Your task to perform on an android device: install app "Facebook" Image 0: 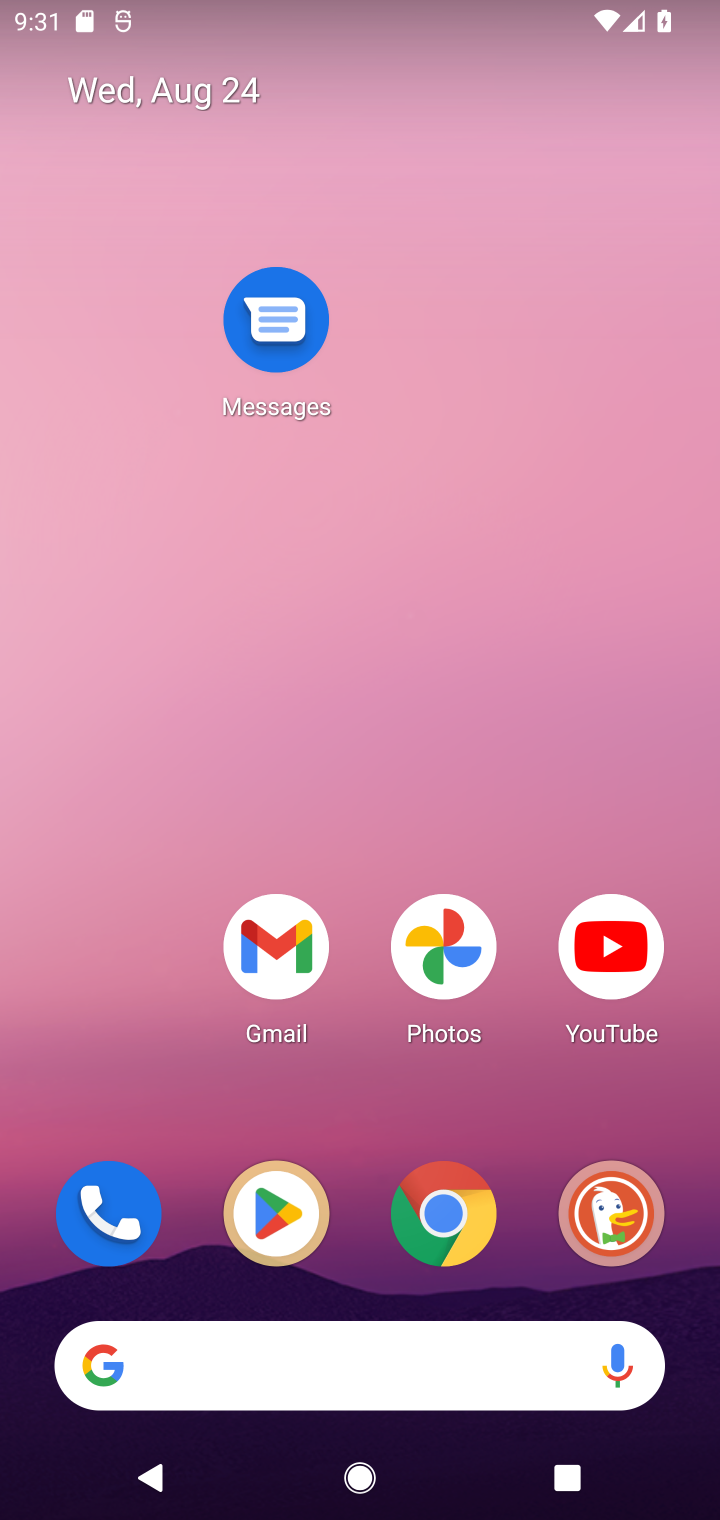
Step 0: click (273, 1207)
Your task to perform on an android device: install app "Facebook" Image 1: 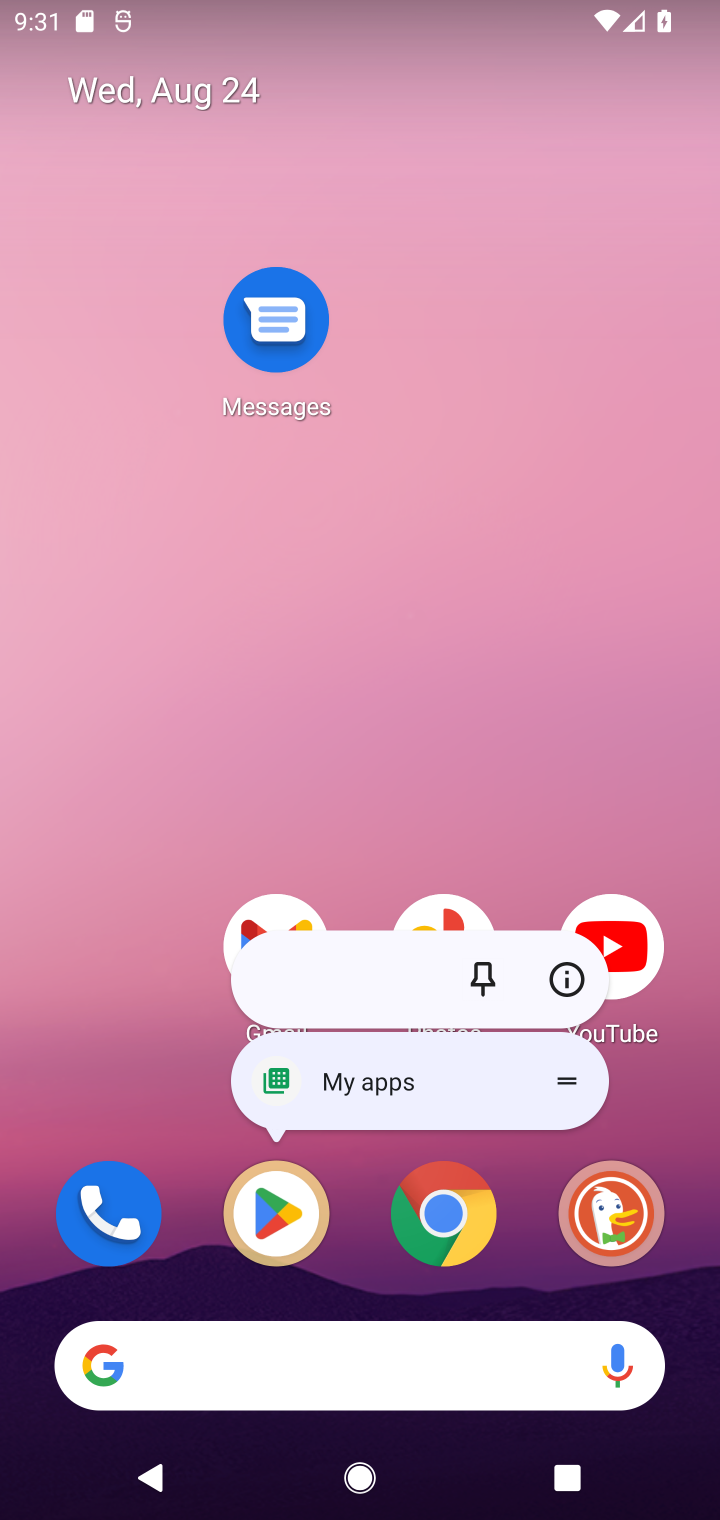
Step 1: click (295, 1223)
Your task to perform on an android device: install app "Facebook" Image 2: 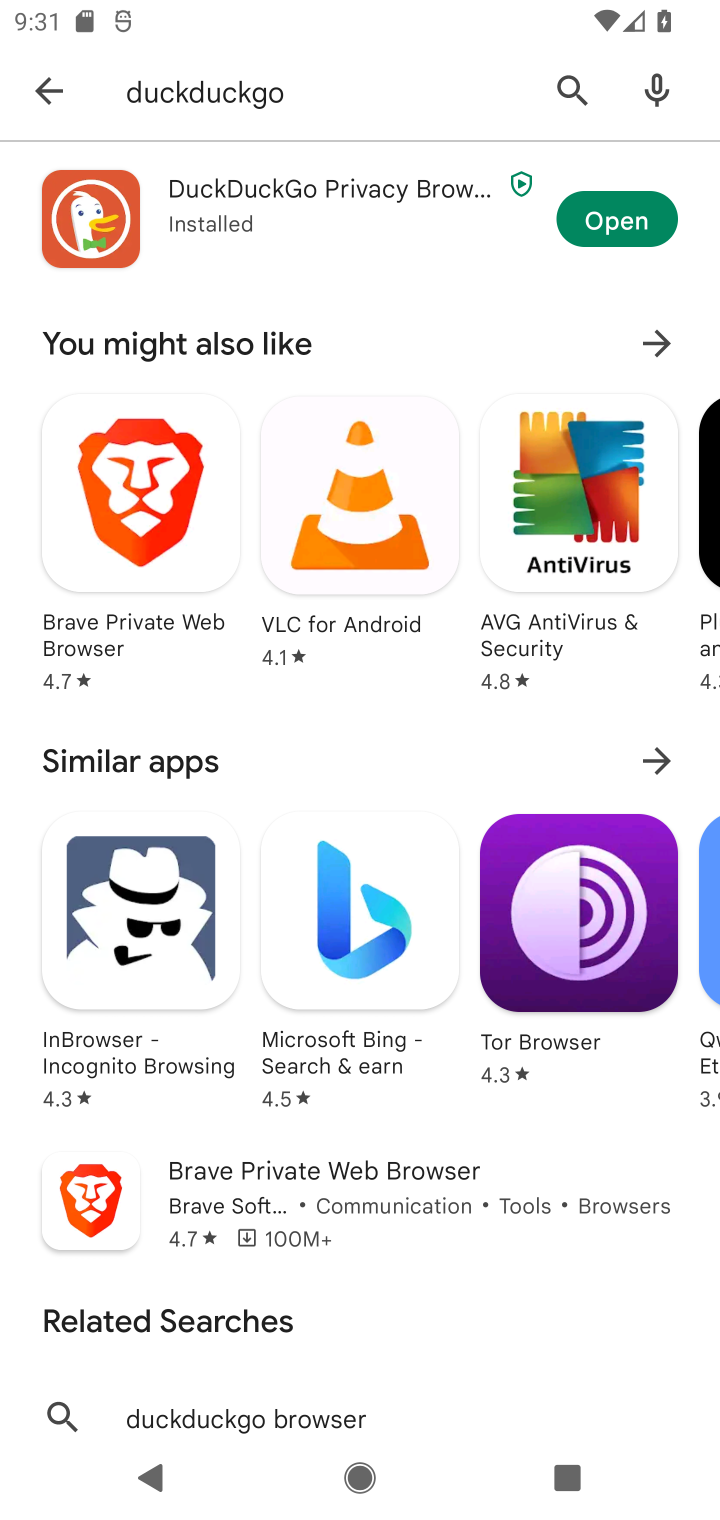
Step 2: click (301, 103)
Your task to perform on an android device: install app "Facebook" Image 3: 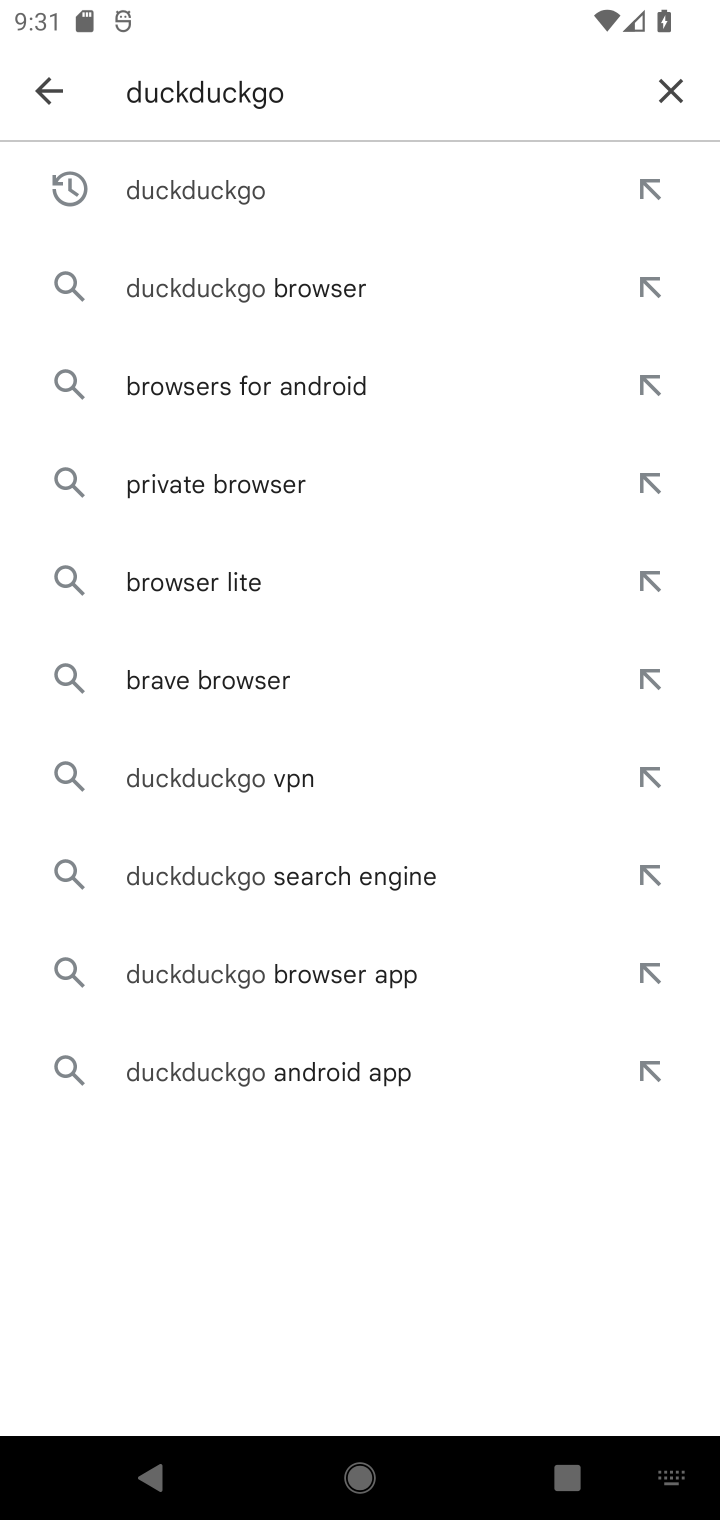
Step 3: click (683, 76)
Your task to perform on an android device: install app "Facebook" Image 4: 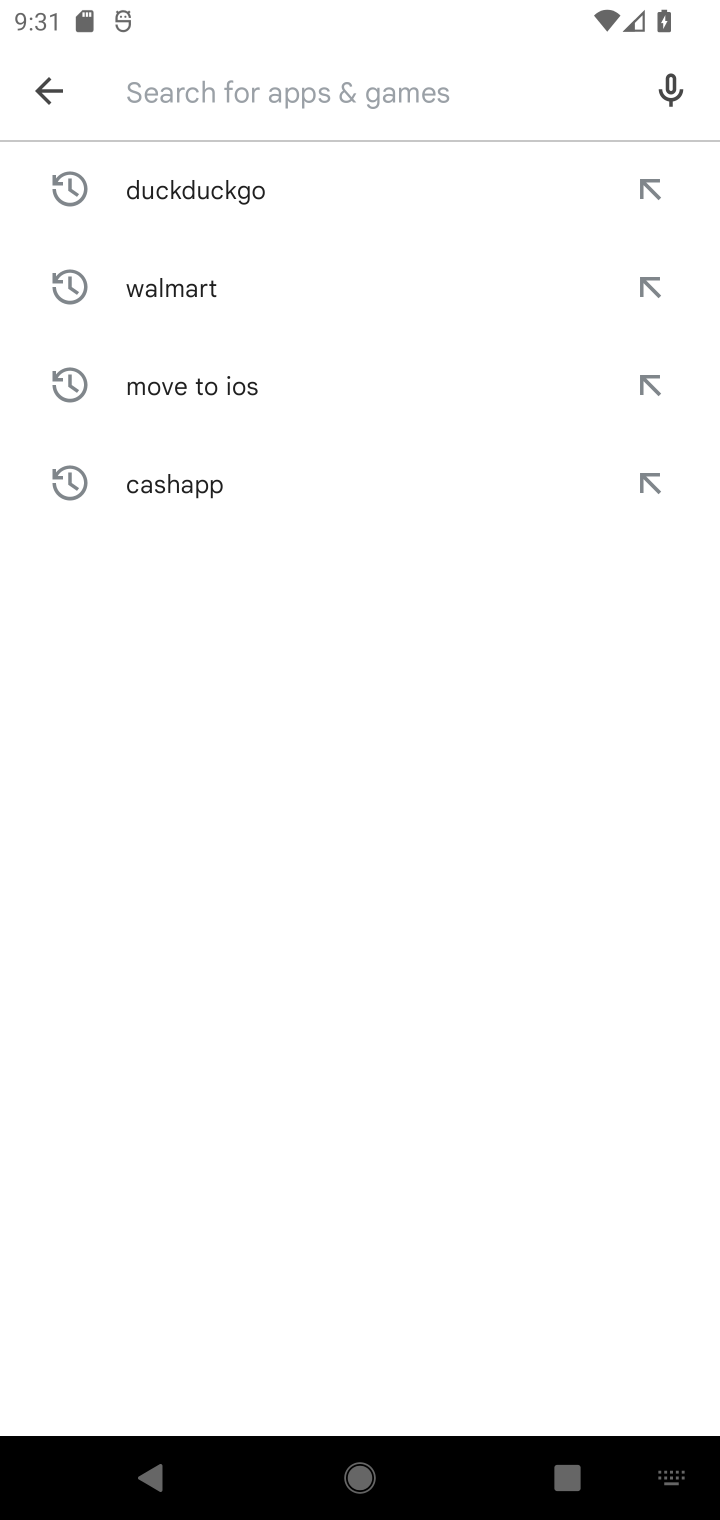
Step 4: type "facebook"
Your task to perform on an android device: install app "Facebook" Image 5: 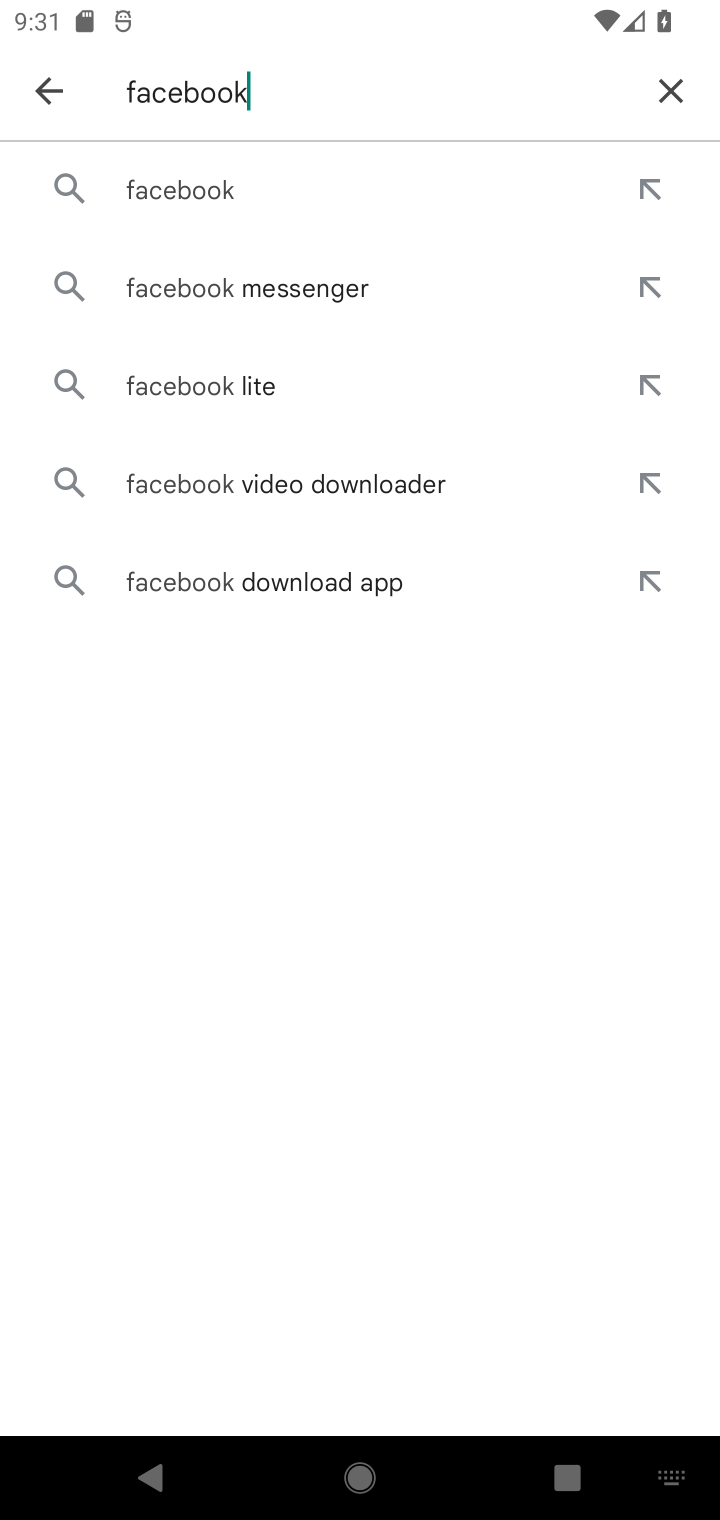
Step 5: click (131, 202)
Your task to perform on an android device: install app "Facebook" Image 6: 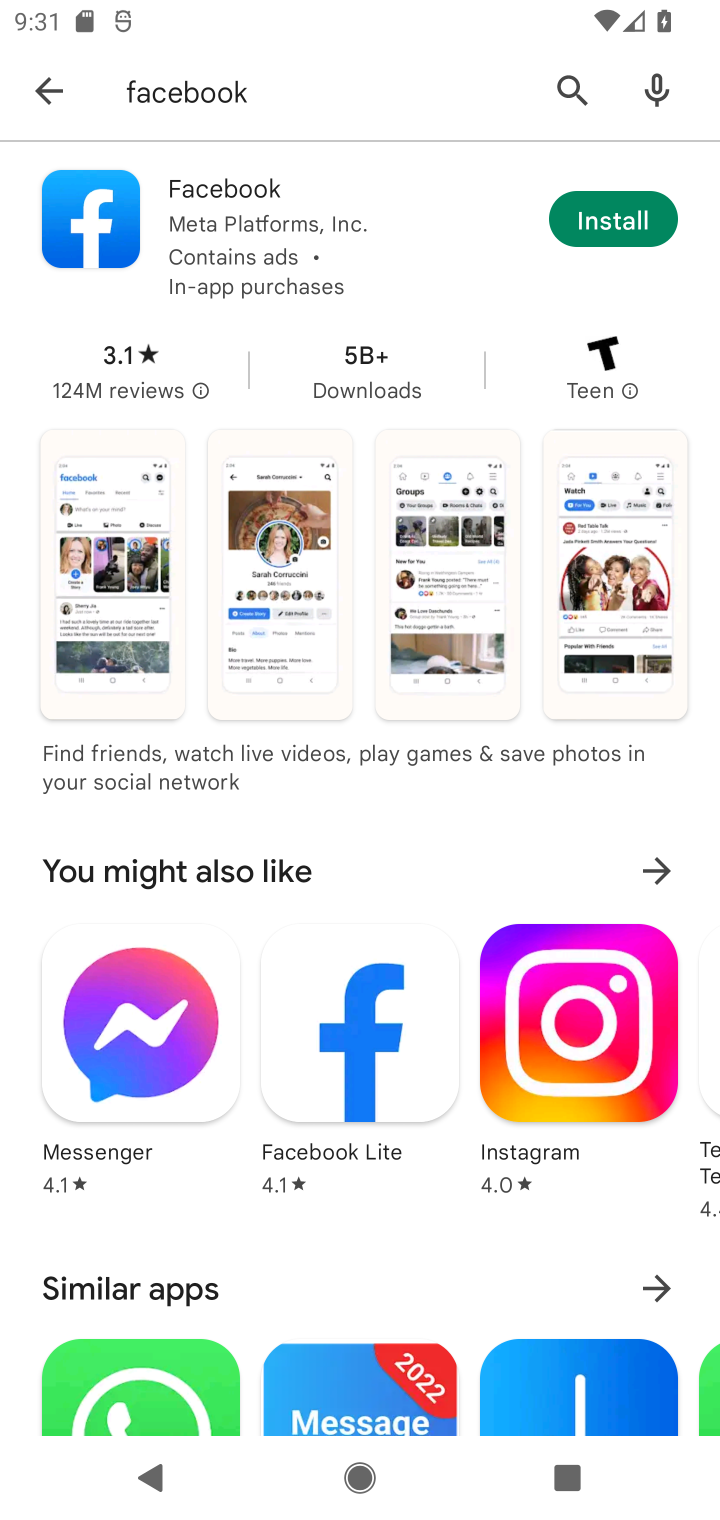
Step 6: click (665, 208)
Your task to perform on an android device: install app "Facebook" Image 7: 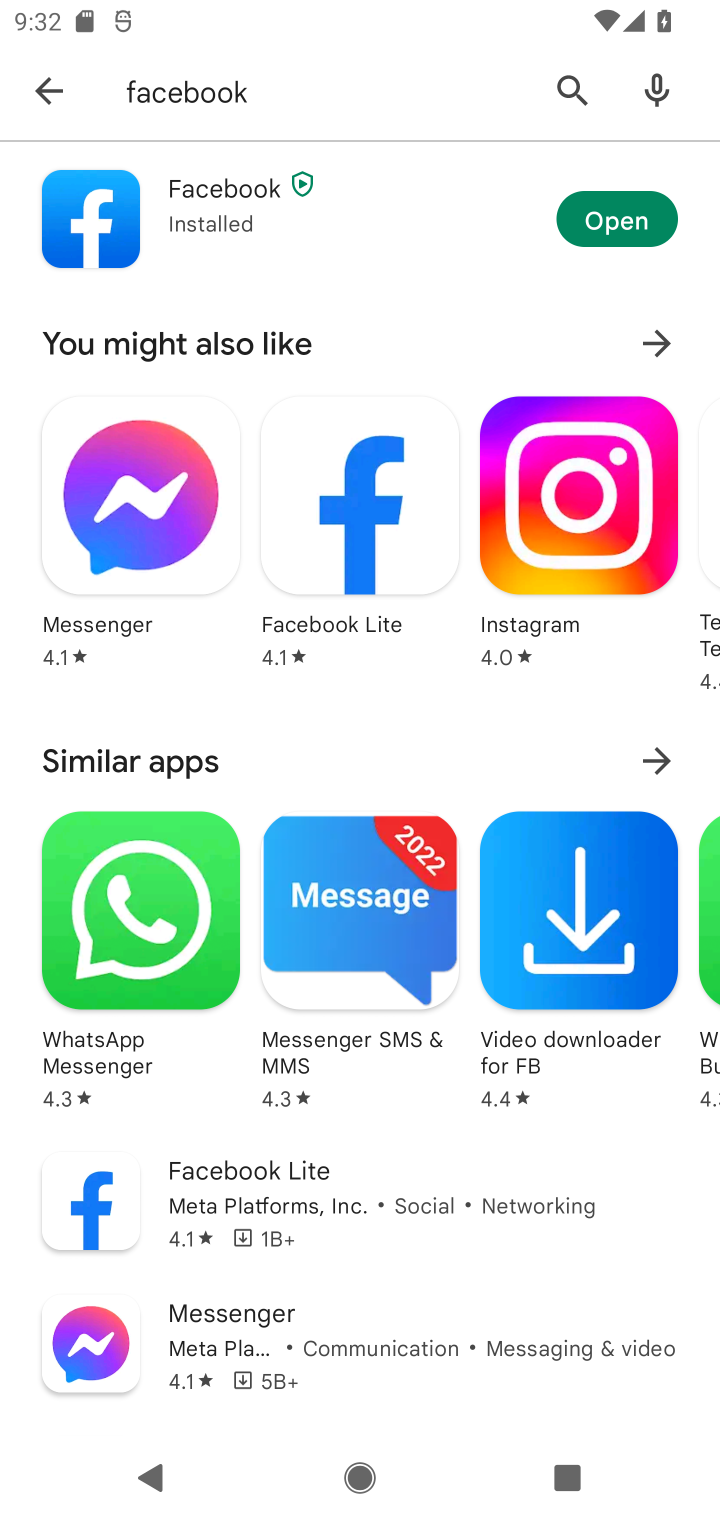
Step 7: task complete